Your task to perform on an android device: turn off priority inbox in the gmail app Image 0: 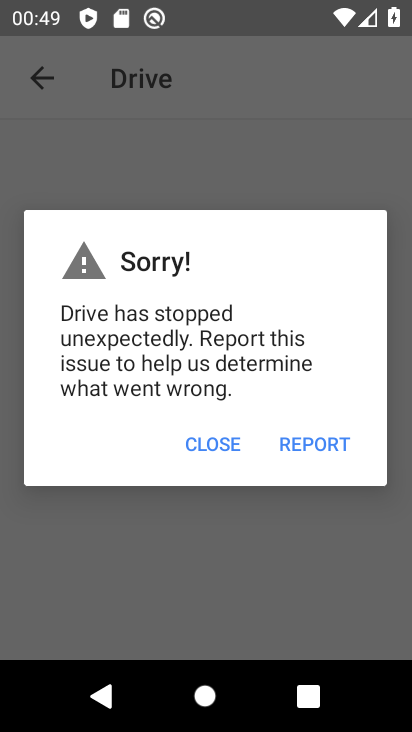
Step 0: press back button
Your task to perform on an android device: turn off priority inbox in the gmail app Image 1: 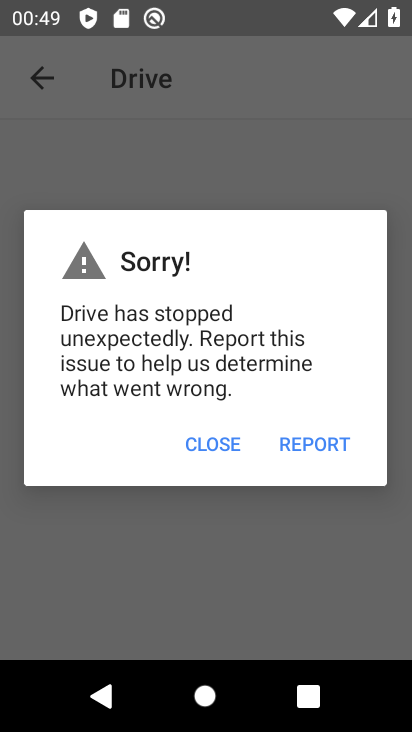
Step 1: press home button
Your task to perform on an android device: turn off priority inbox in the gmail app Image 2: 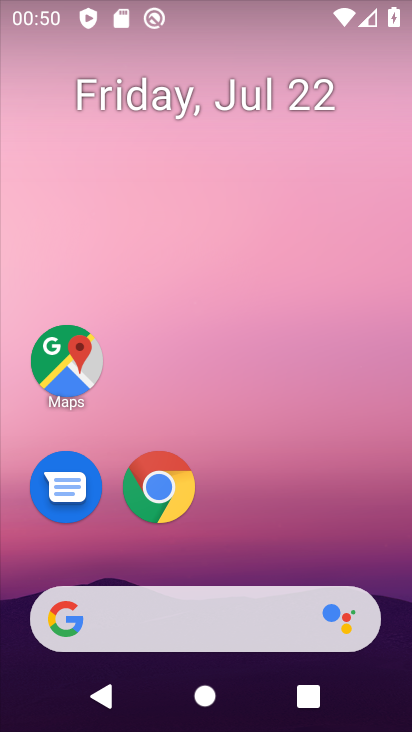
Step 2: drag from (258, 492) to (310, 9)
Your task to perform on an android device: turn off priority inbox in the gmail app Image 3: 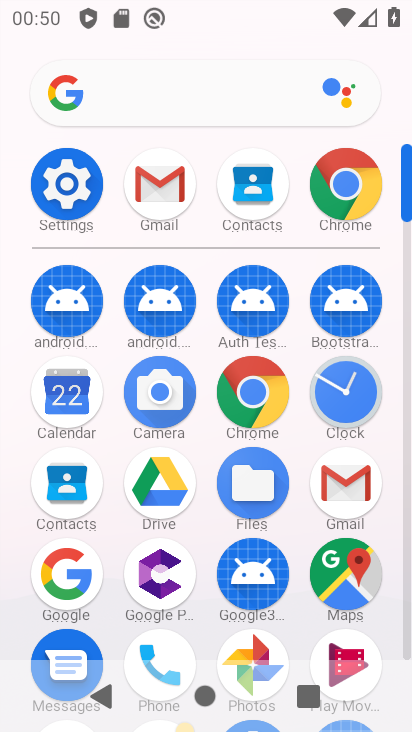
Step 3: click (159, 187)
Your task to perform on an android device: turn off priority inbox in the gmail app Image 4: 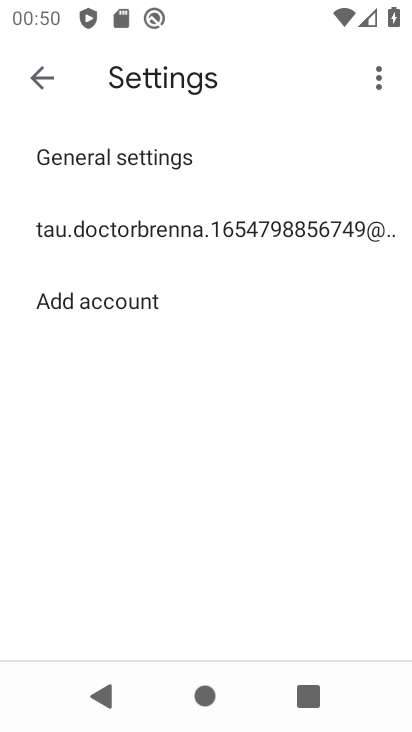
Step 4: click (83, 229)
Your task to perform on an android device: turn off priority inbox in the gmail app Image 5: 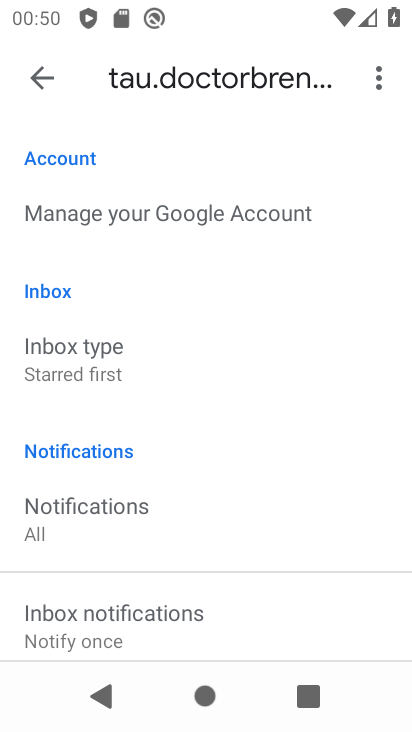
Step 5: click (56, 344)
Your task to perform on an android device: turn off priority inbox in the gmail app Image 6: 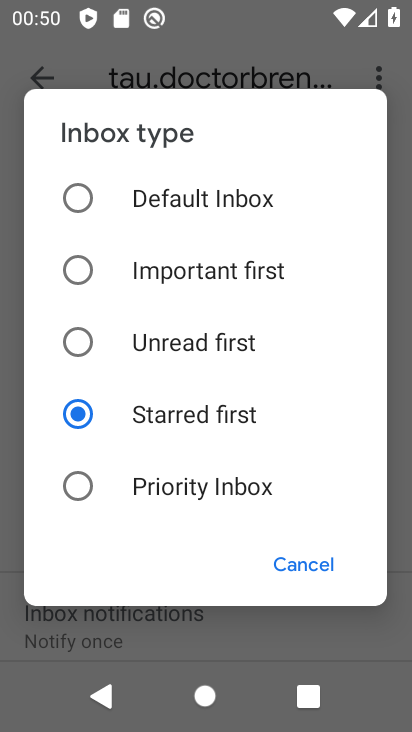
Step 6: task complete